Your task to perform on an android device: open a new tab in the chrome app Image 0: 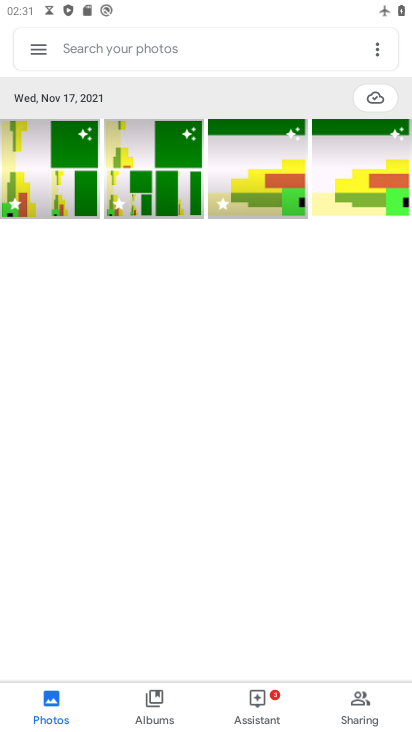
Step 0: press home button
Your task to perform on an android device: open a new tab in the chrome app Image 1: 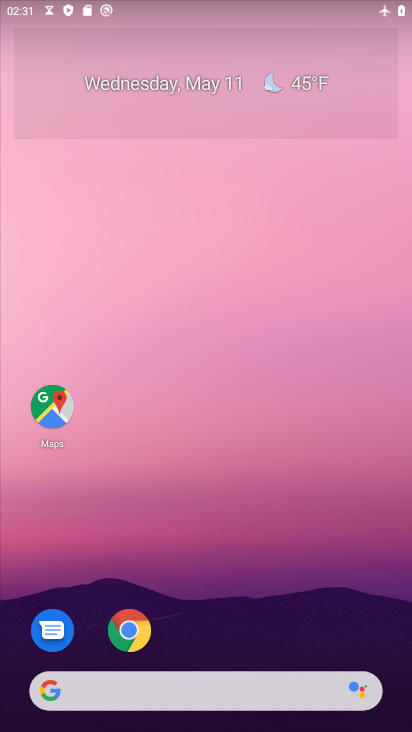
Step 1: click (124, 626)
Your task to perform on an android device: open a new tab in the chrome app Image 2: 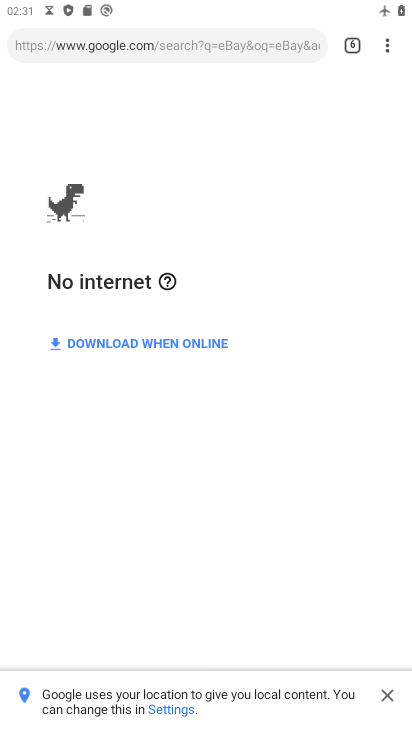
Step 2: click (389, 47)
Your task to perform on an android device: open a new tab in the chrome app Image 3: 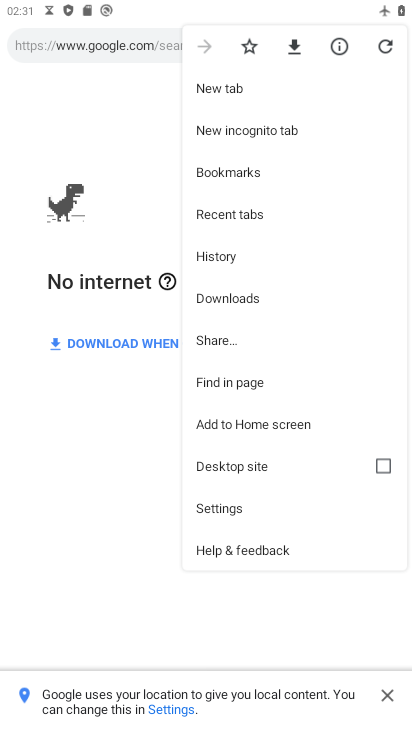
Step 3: click (220, 89)
Your task to perform on an android device: open a new tab in the chrome app Image 4: 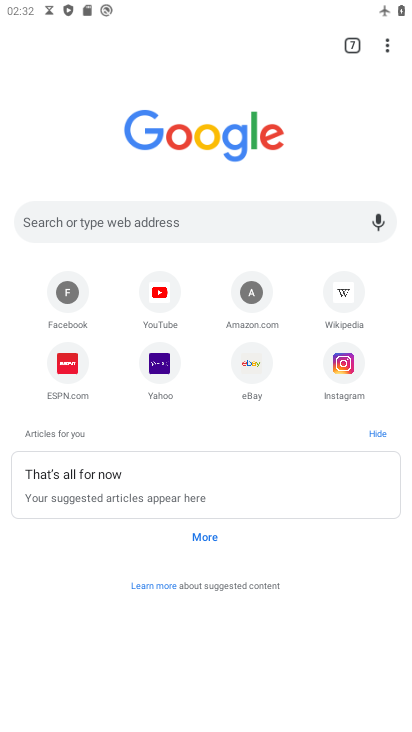
Step 4: task complete